Your task to perform on an android device: Open eBay Image 0: 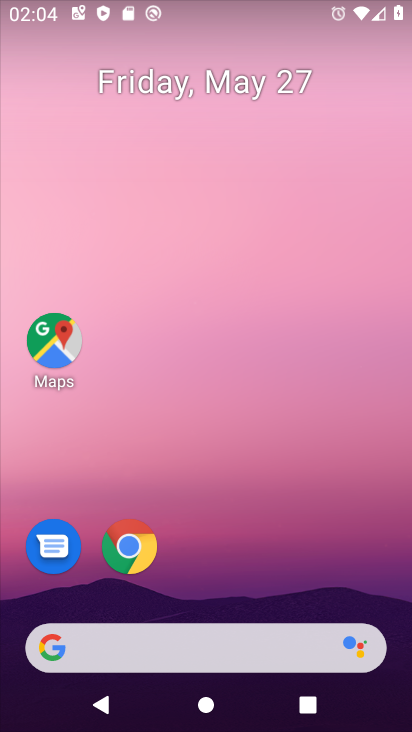
Step 0: drag from (302, 661) to (259, 131)
Your task to perform on an android device: Open eBay Image 1: 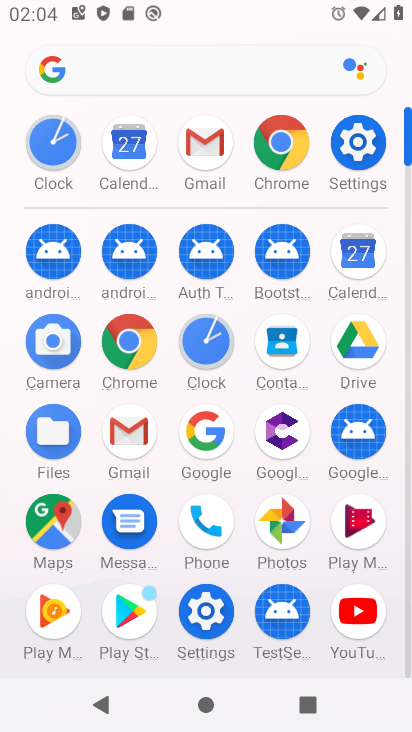
Step 1: click (278, 138)
Your task to perform on an android device: Open eBay Image 2: 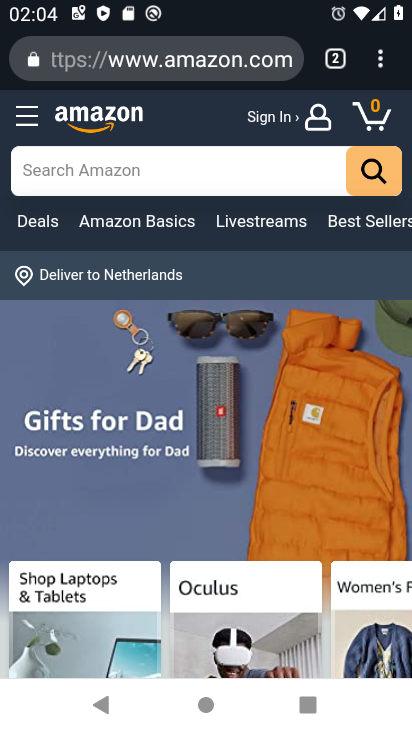
Step 2: click (199, 70)
Your task to perform on an android device: Open eBay Image 3: 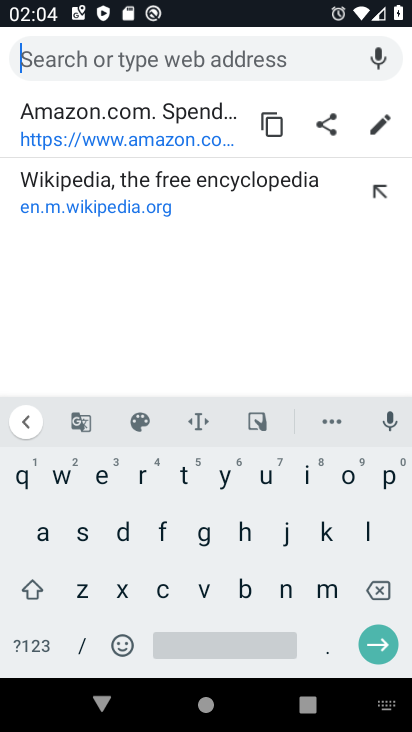
Step 3: click (102, 481)
Your task to perform on an android device: Open eBay Image 4: 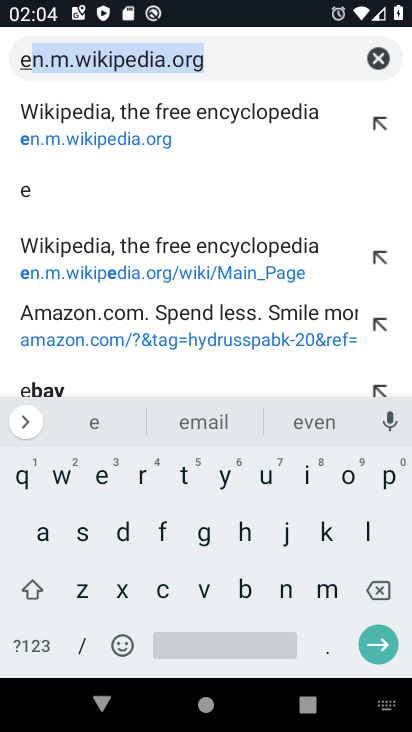
Step 4: click (241, 597)
Your task to perform on an android device: Open eBay Image 5: 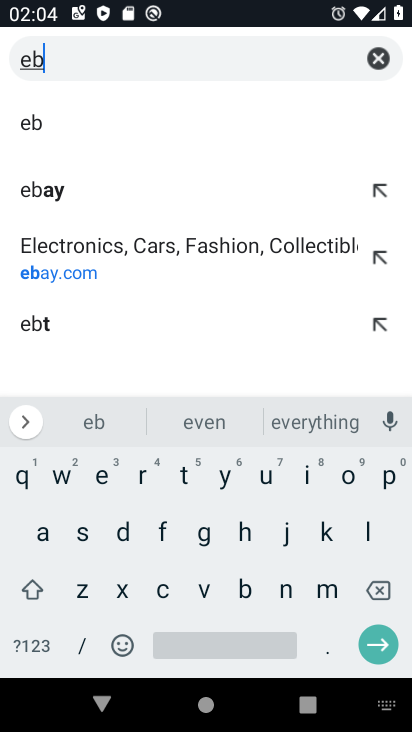
Step 5: click (63, 190)
Your task to perform on an android device: Open eBay Image 6: 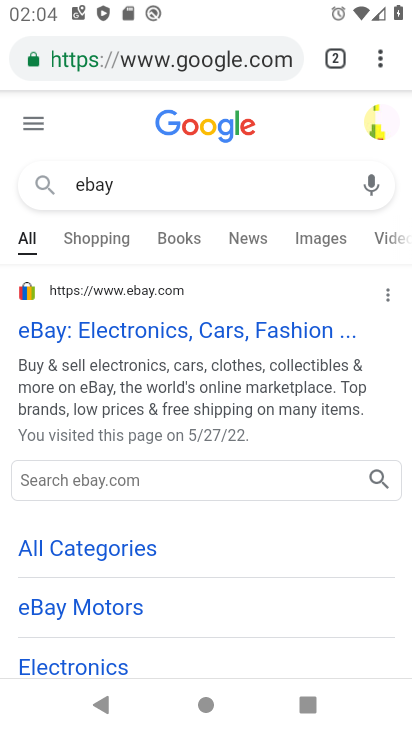
Step 6: click (101, 333)
Your task to perform on an android device: Open eBay Image 7: 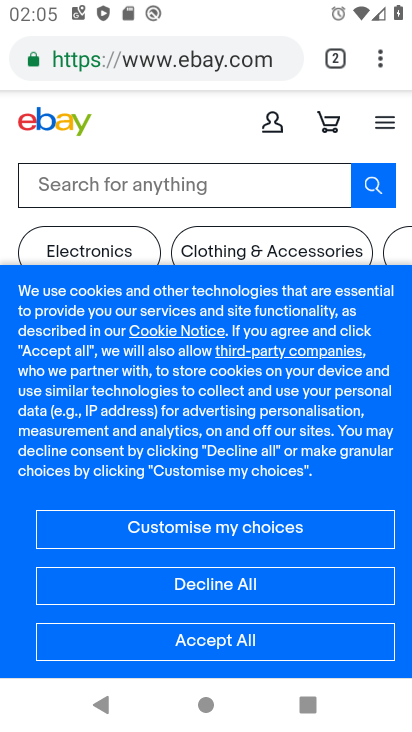
Step 7: task complete